Your task to perform on an android device: find which apps use the phone's location Image 0: 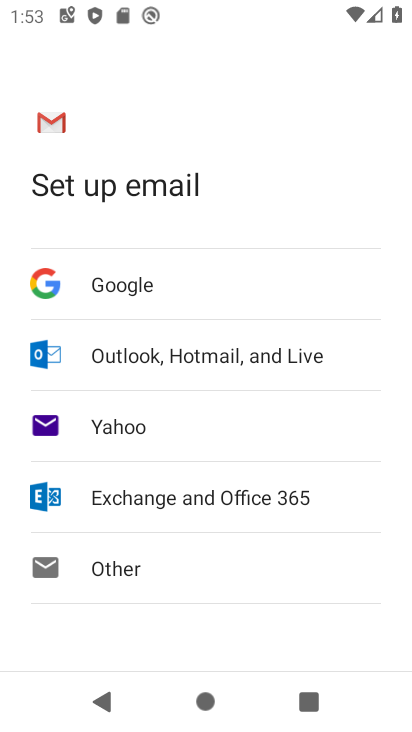
Step 0: press home button
Your task to perform on an android device: find which apps use the phone's location Image 1: 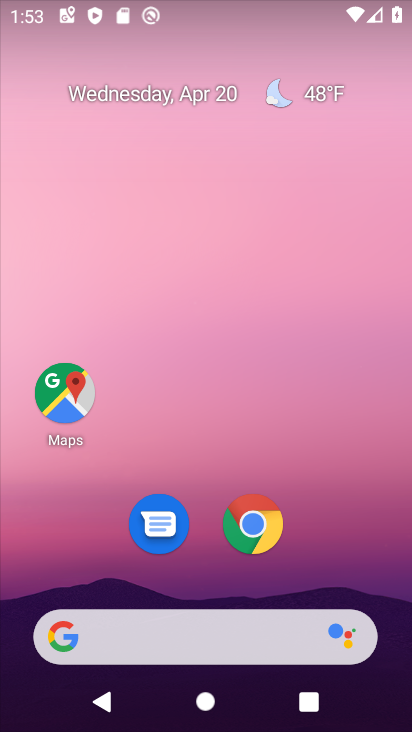
Step 1: drag from (372, 548) to (352, 111)
Your task to perform on an android device: find which apps use the phone's location Image 2: 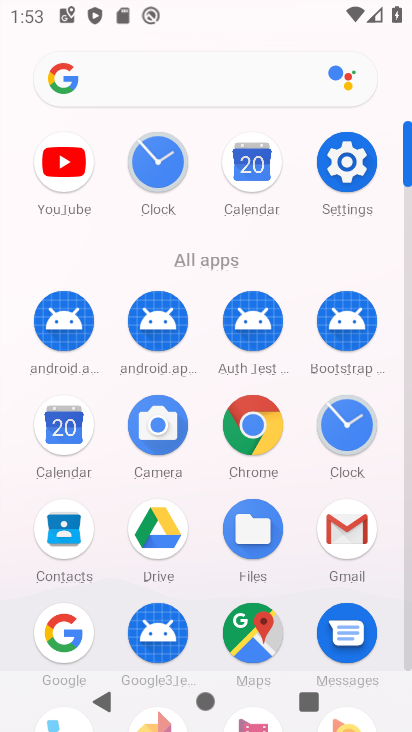
Step 2: click (345, 161)
Your task to perform on an android device: find which apps use the phone's location Image 3: 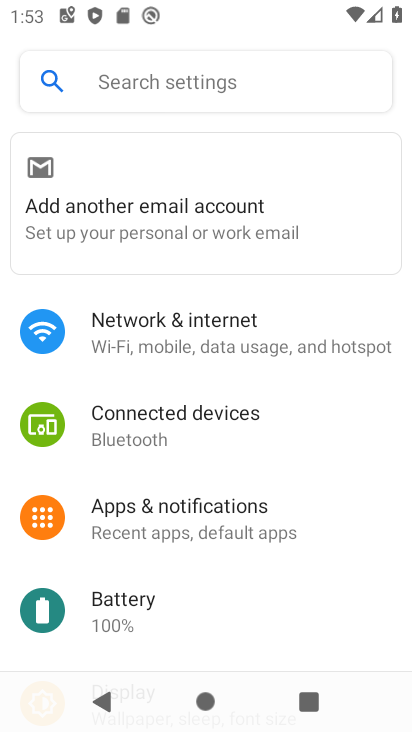
Step 3: drag from (234, 580) to (273, 95)
Your task to perform on an android device: find which apps use the phone's location Image 4: 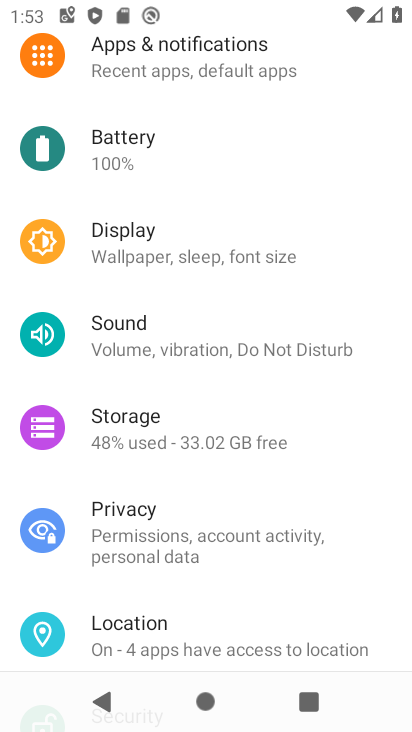
Step 4: drag from (227, 577) to (255, 248)
Your task to perform on an android device: find which apps use the phone's location Image 5: 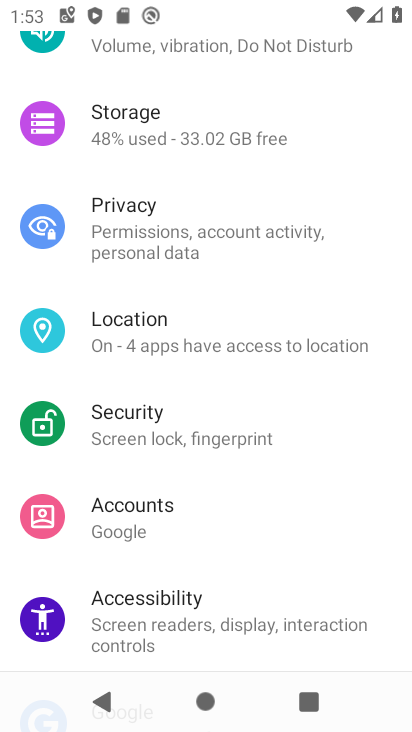
Step 5: click (248, 325)
Your task to perform on an android device: find which apps use the phone's location Image 6: 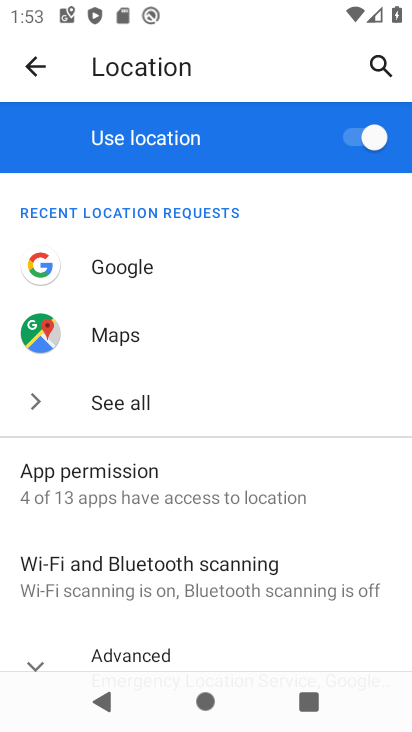
Step 6: task complete